Your task to perform on an android device: change notifications settings Image 0: 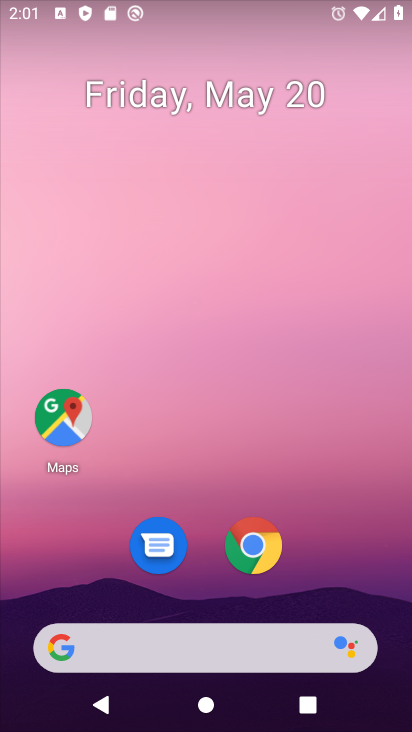
Step 0: drag from (356, 639) to (342, 0)
Your task to perform on an android device: change notifications settings Image 1: 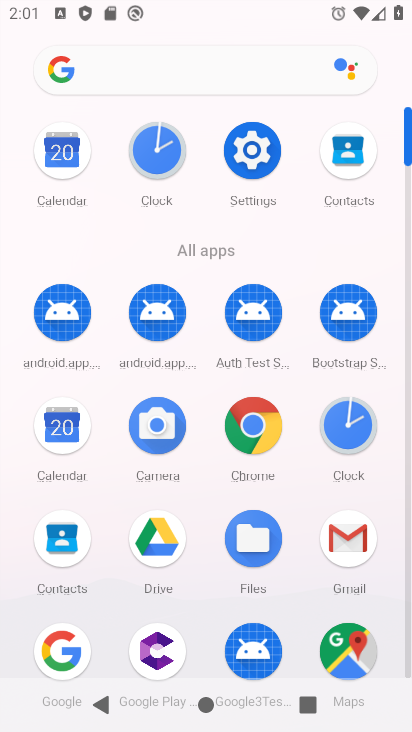
Step 1: click (267, 155)
Your task to perform on an android device: change notifications settings Image 2: 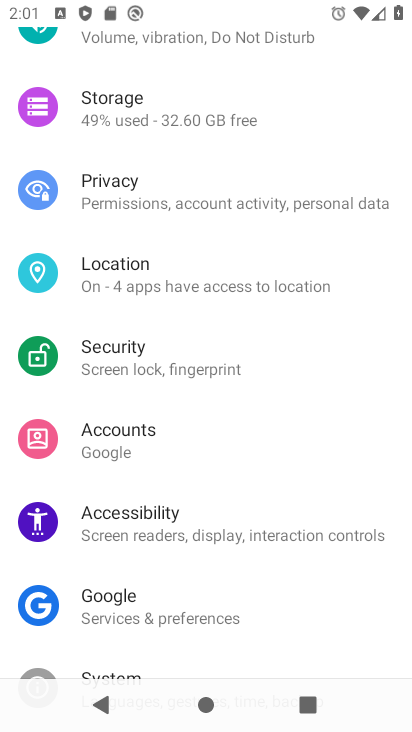
Step 2: drag from (156, 175) to (170, 728)
Your task to perform on an android device: change notifications settings Image 3: 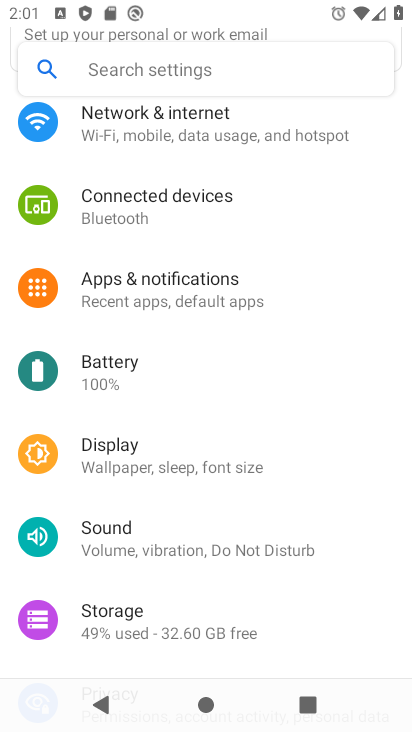
Step 3: click (167, 296)
Your task to perform on an android device: change notifications settings Image 4: 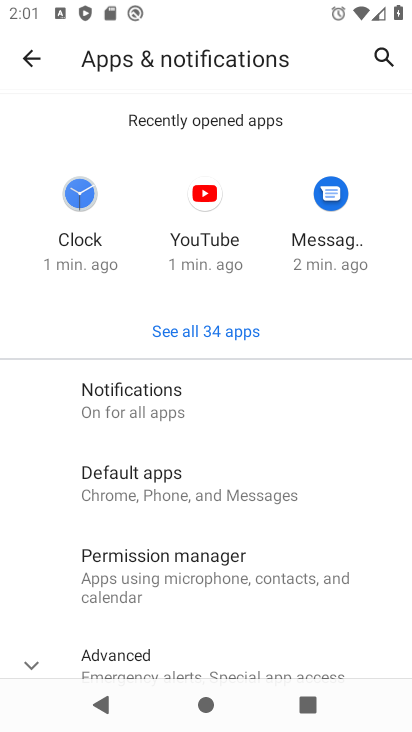
Step 4: click (152, 400)
Your task to perform on an android device: change notifications settings Image 5: 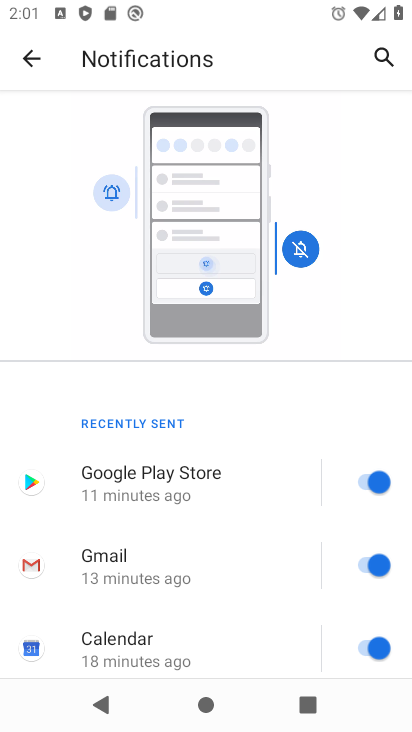
Step 5: click (374, 482)
Your task to perform on an android device: change notifications settings Image 6: 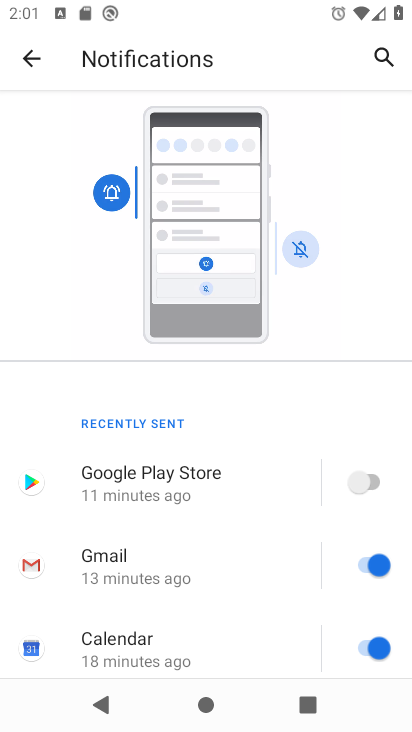
Step 6: click (370, 561)
Your task to perform on an android device: change notifications settings Image 7: 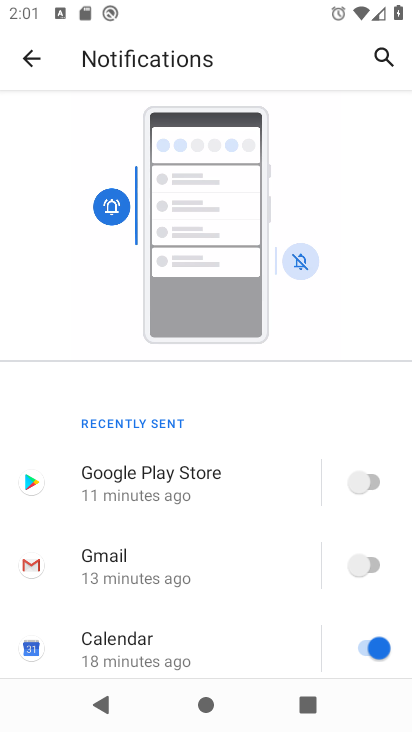
Step 7: click (378, 647)
Your task to perform on an android device: change notifications settings Image 8: 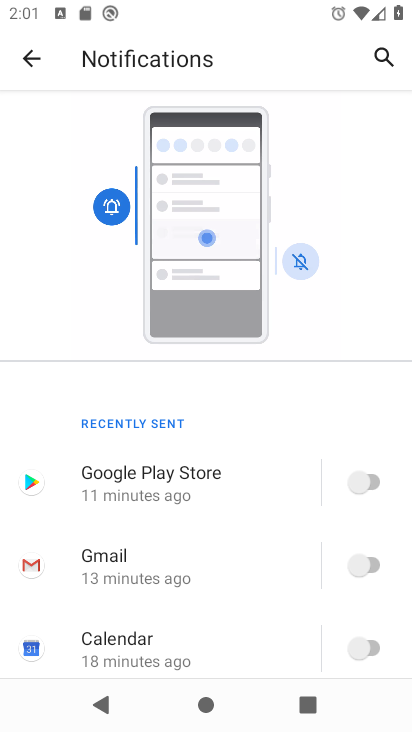
Step 8: task complete